Your task to perform on an android device: Open my contact list Image 0: 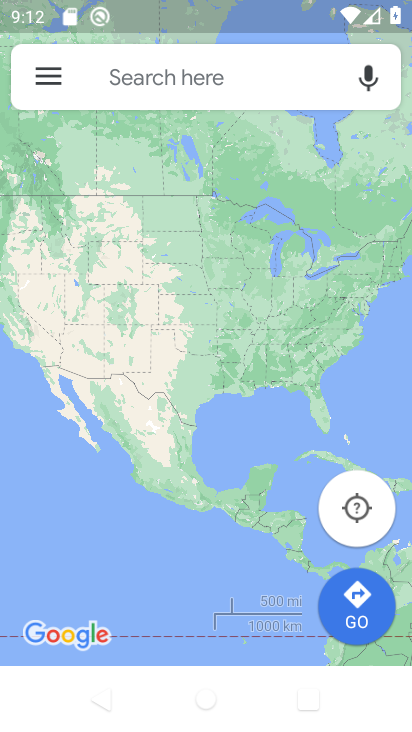
Step 0: press home button
Your task to perform on an android device: Open my contact list Image 1: 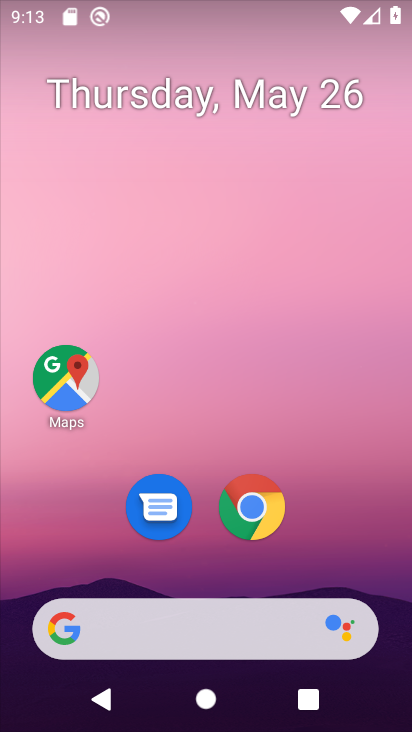
Step 1: drag from (355, 556) to (374, 236)
Your task to perform on an android device: Open my contact list Image 2: 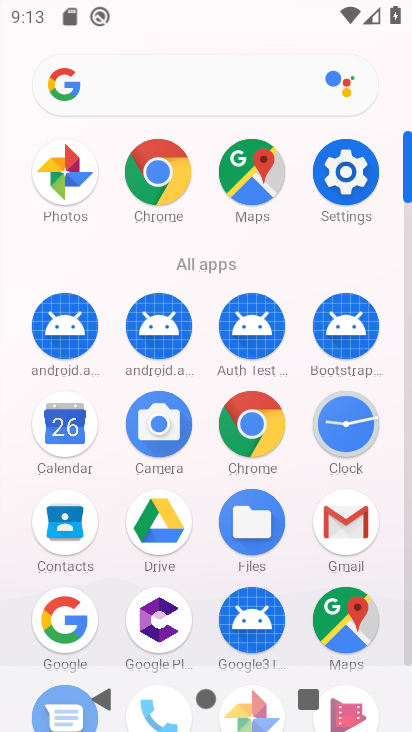
Step 2: click (56, 535)
Your task to perform on an android device: Open my contact list Image 3: 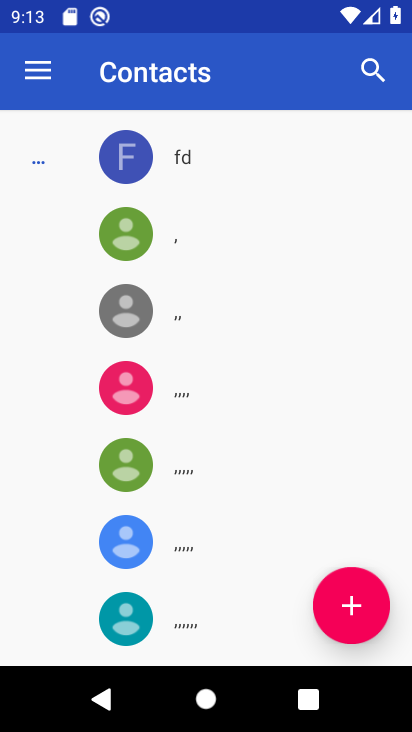
Step 3: click (345, 597)
Your task to perform on an android device: Open my contact list Image 4: 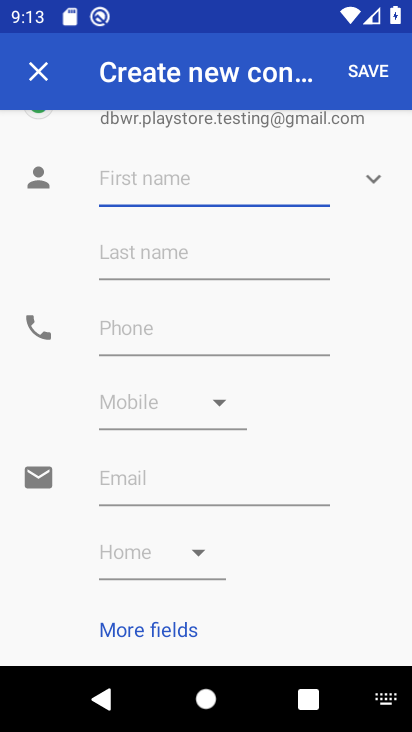
Step 4: click (217, 192)
Your task to perform on an android device: Open my contact list Image 5: 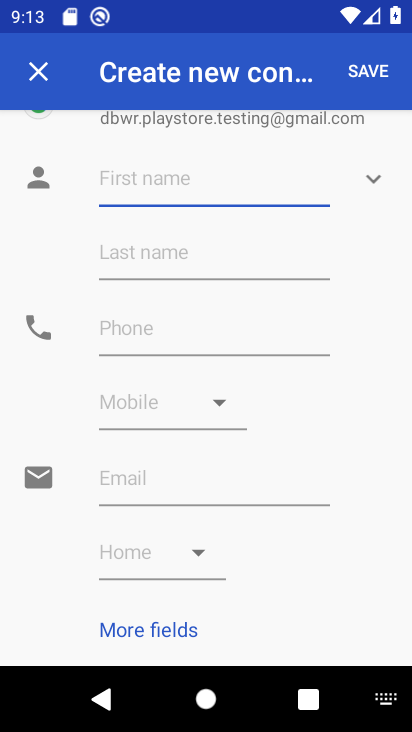
Step 5: click (217, 192)
Your task to perform on an android device: Open my contact list Image 6: 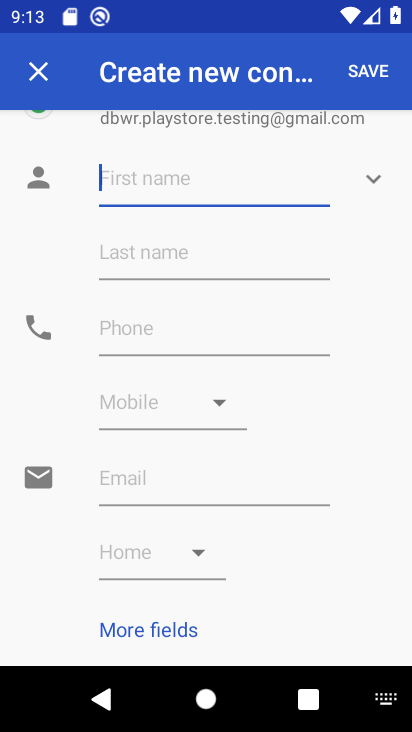
Step 6: type "my luv"
Your task to perform on an android device: Open my contact list Image 7: 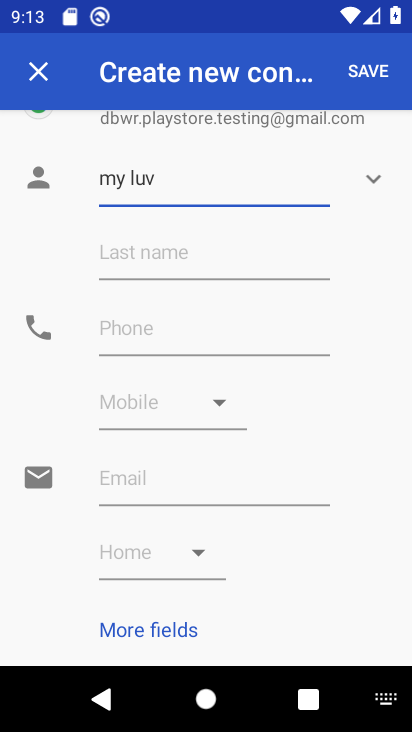
Step 7: click (258, 321)
Your task to perform on an android device: Open my contact list Image 8: 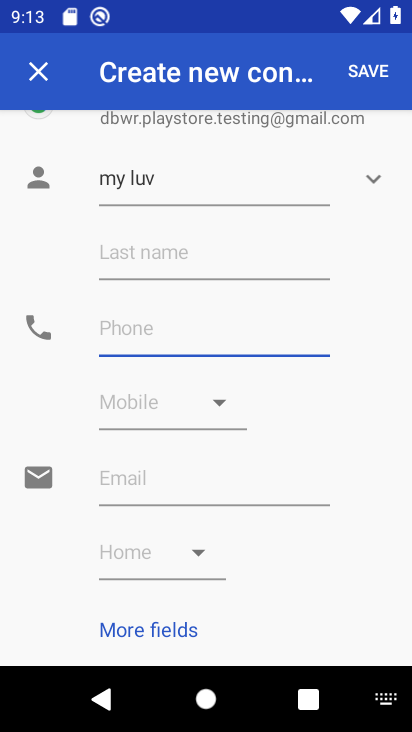
Step 8: type "1234567890"
Your task to perform on an android device: Open my contact list Image 9: 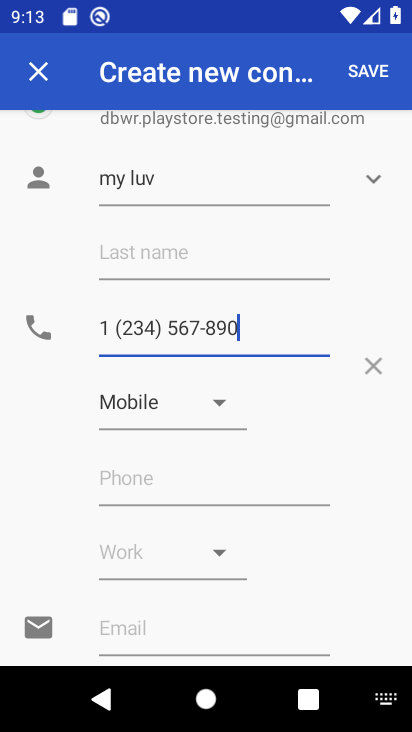
Step 9: click (367, 82)
Your task to perform on an android device: Open my contact list Image 10: 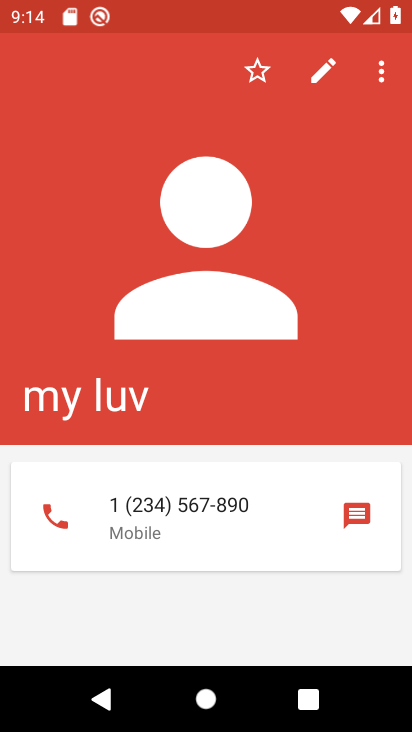
Step 10: task complete